Your task to perform on an android device: Show me popular videos on Youtube Image 0: 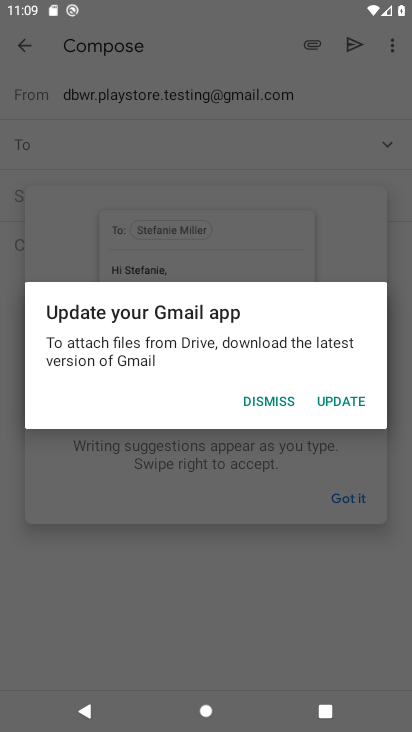
Step 0: press home button
Your task to perform on an android device: Show me popular videos on Youtube Image 1: 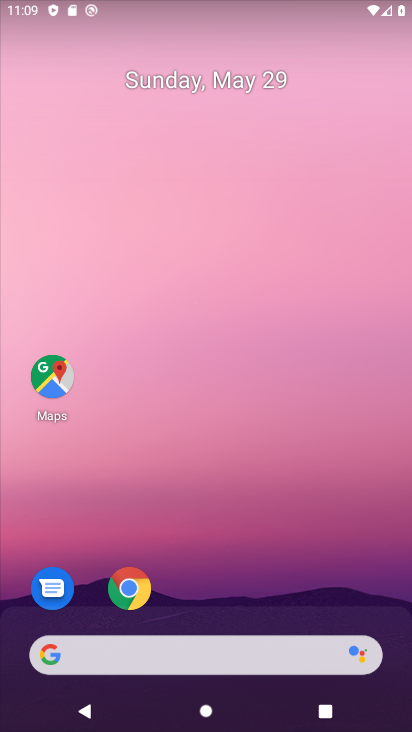
Step 1: drag from (362, 566) to (296, 6)
Your task to perform on an android device: Show me popular videos on Youtube Image 2: 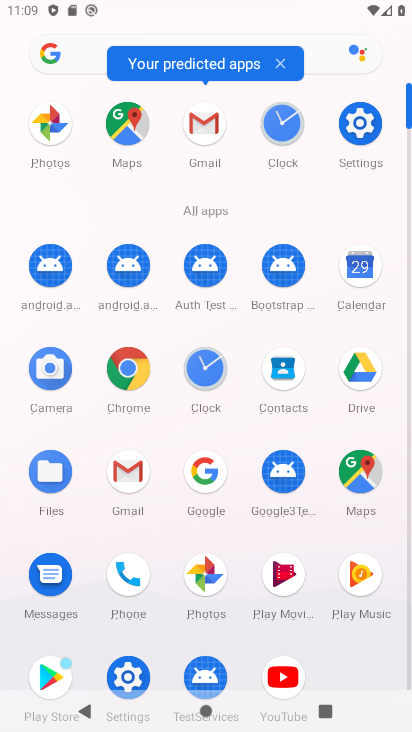
Step 2: click (273, 654)
Your task to perform on an android device: Show me popular videos on Youtube Image 3: 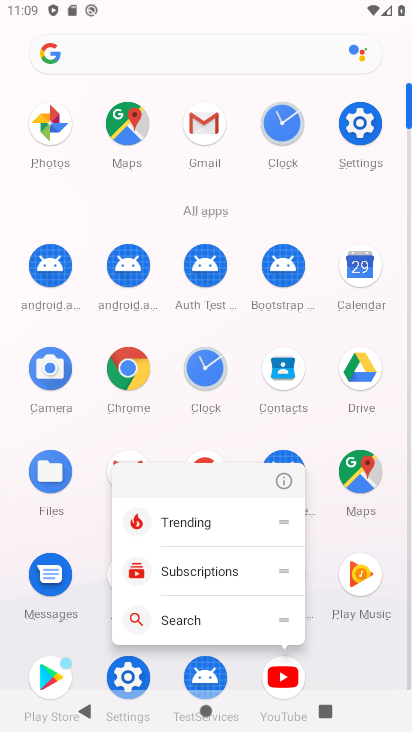
Step 3: click (288, 675)
Your task to perform on an android device: Show me popular videos on Youtube Image 4: 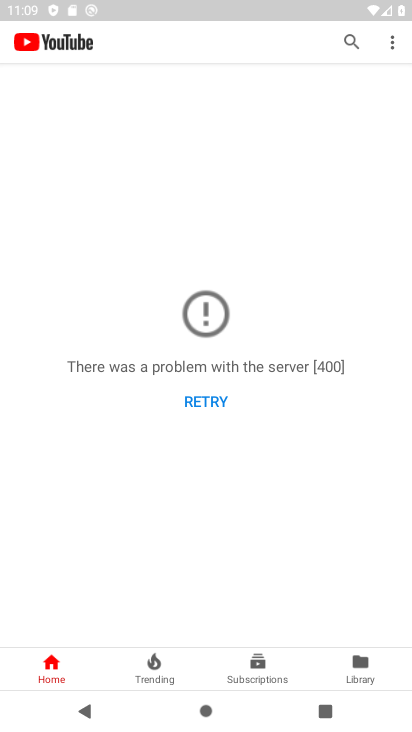
Step 4: click (201, 398)
Your task to perform on an android device: Show me popular videos on Youtube Image 5: 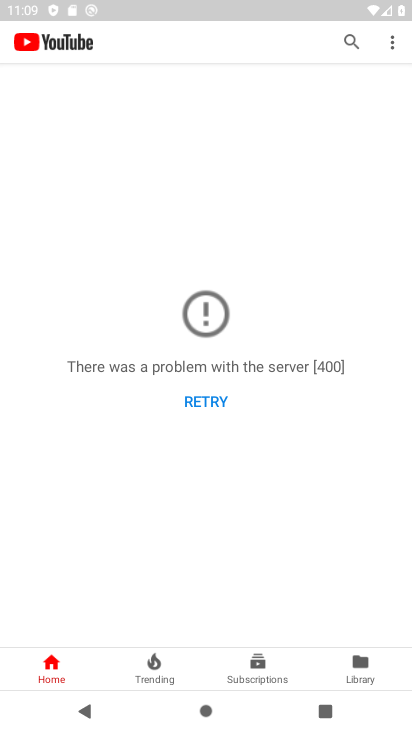
Step 5: click (347, 37)
Your task to perform on an android device: Show me popular videos on Youtube Image 6: 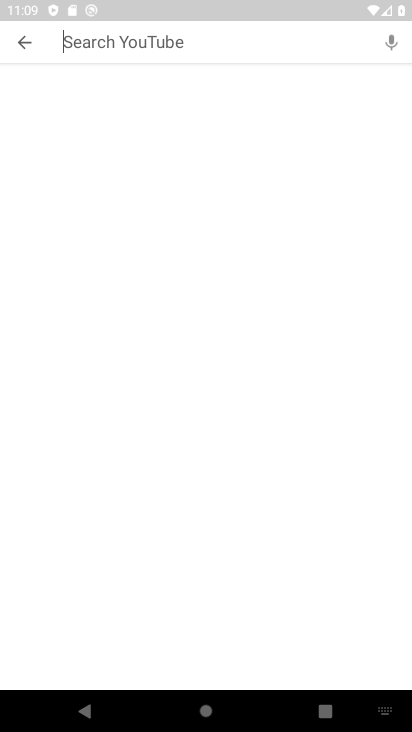
Step 6: type "popular vidoes"
Your task to perform on an android device: Show me popular videos on Youtube Image 7: 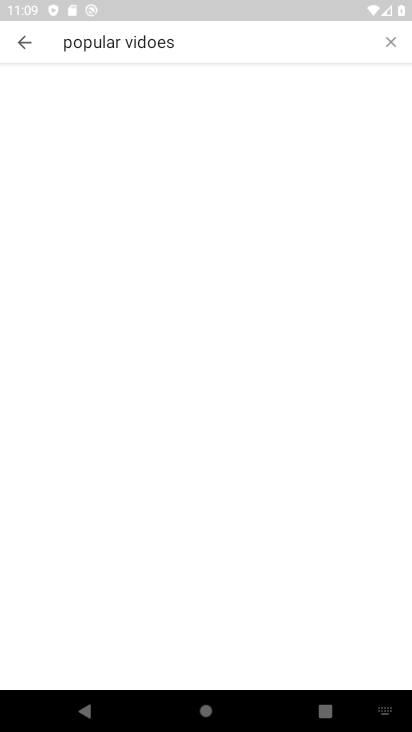
Step 7: press enter
Your task to perform on an android device: Show me popular videos on Youtube Image 8: 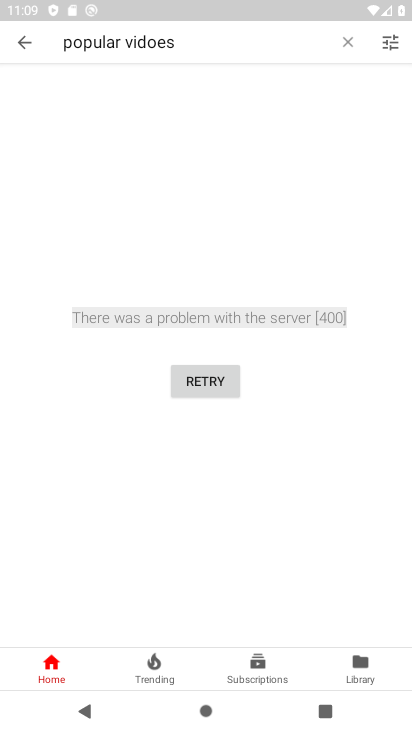
Step 8: click (219, 382)
Your task to perform on an android device: Show me popular videos on Youtube Image 9: 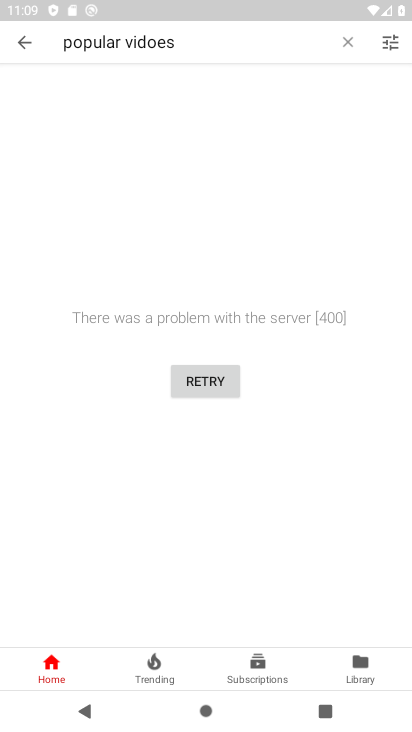
Step 9: task complete